Your task to perform on an android device: clear all cookies in the chrome app Image 0: 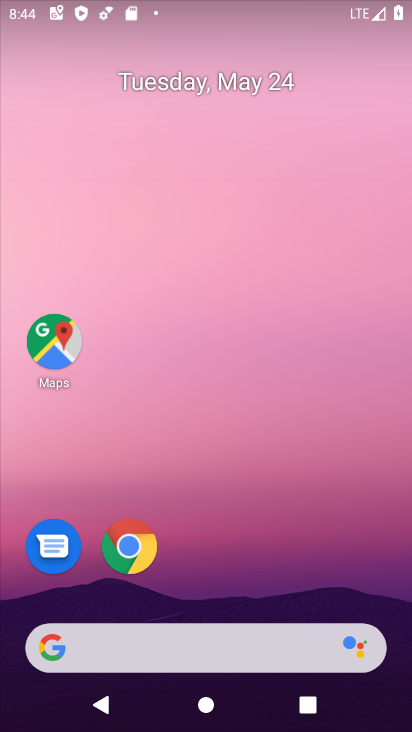
Step 0: click (128, 537)
Your task to perform on an android device: clear all cookies in the chrome app Image 1: 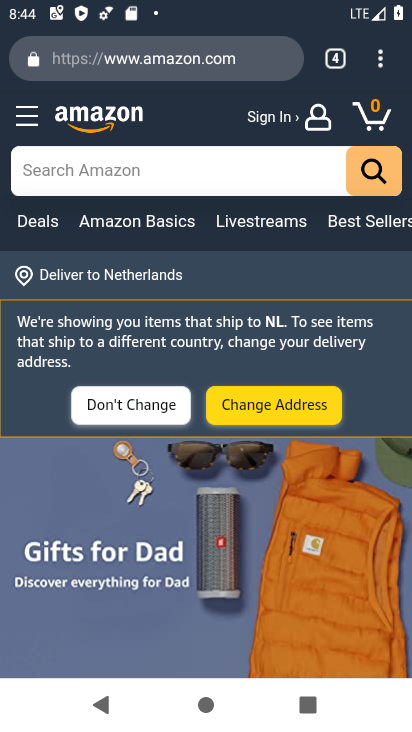
Step 1: click (382, 62)
Your task to perform on an android device: clear all cookies in the chrome app Image 2: 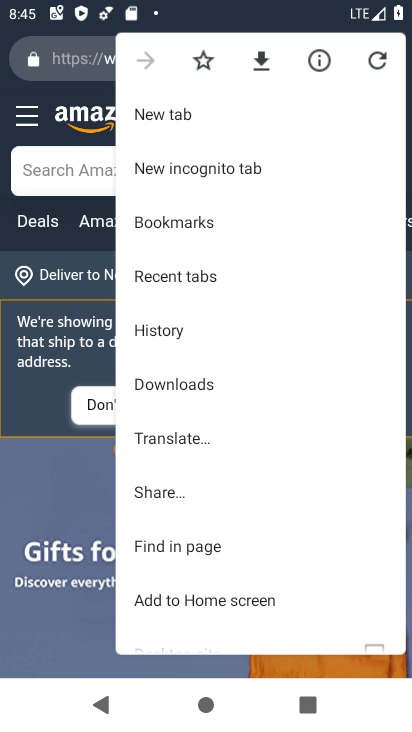
Step 2: click (181, 326)
Your task to perform on an android device: clear all cookies in the chrome app Image 3: 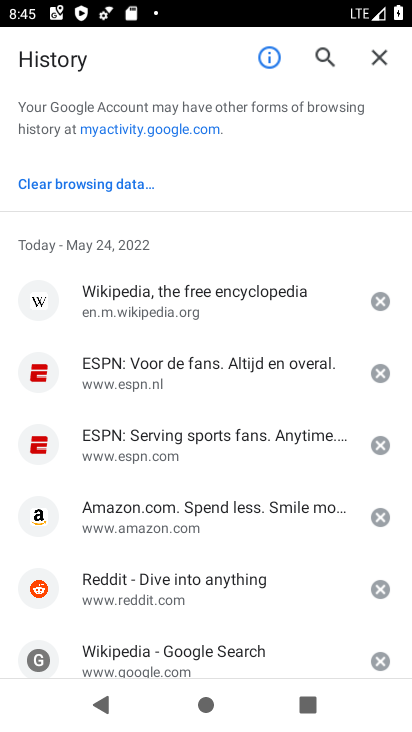
Step 3: click (130, 178)
Your task to perform on an android device: clear all cookies in the chrome app Image 4: 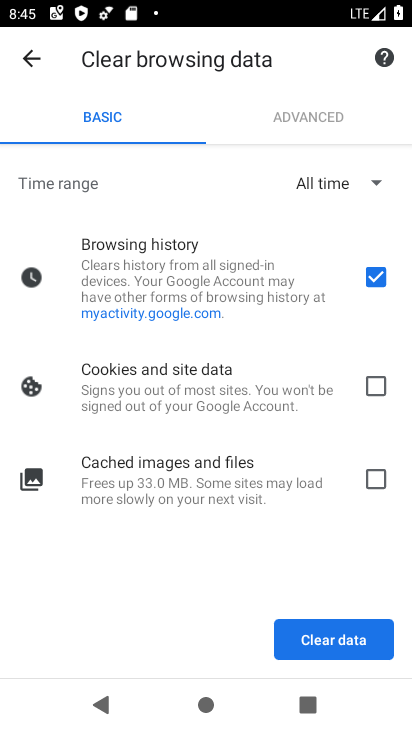
Step 4: click (372, 375)
Your task to perform on an android device: clear all cookies in the chrome app Image 5: 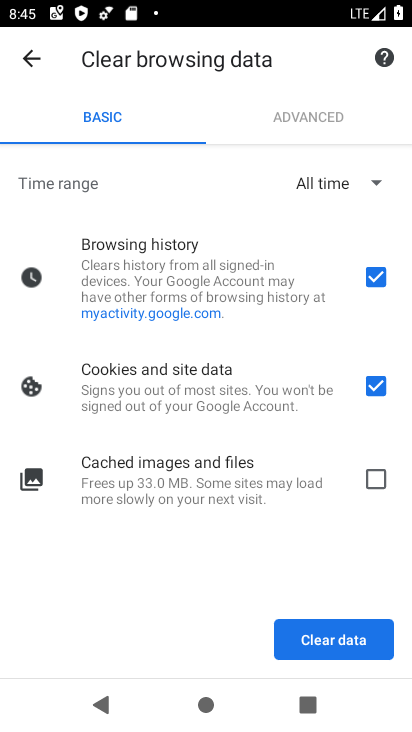
Step 5: click (379, 259)
Your task to perform on an android device: clear all cookies in the chrome app Image 6: 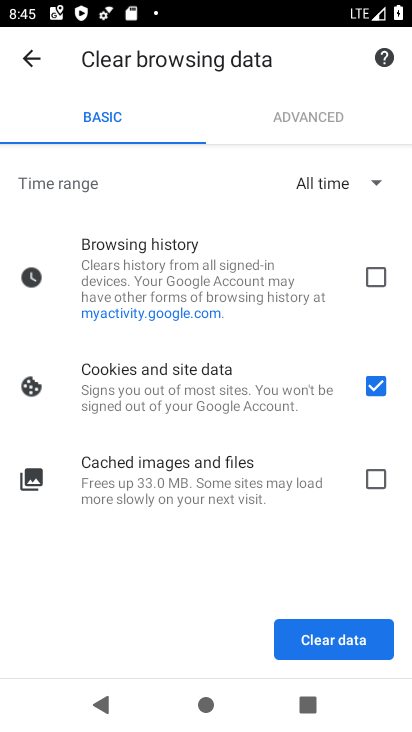
Step 6: click (351, 636)
Your task to perform on an android device: clear all cookies in the chrome app Image 7: 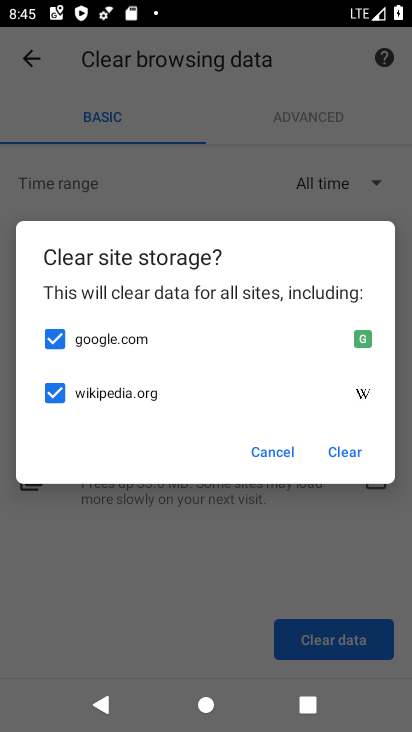
Step 7: click (353, 447)
Your task to perform on an android device: clear all cookies in the chrome app Image 8: 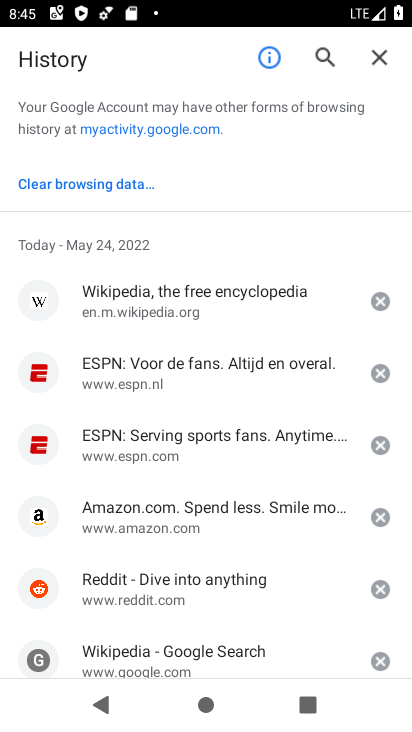
Step 8: task complete